Your task to perform on an android device: Find coffee shops on Maps Image 0: 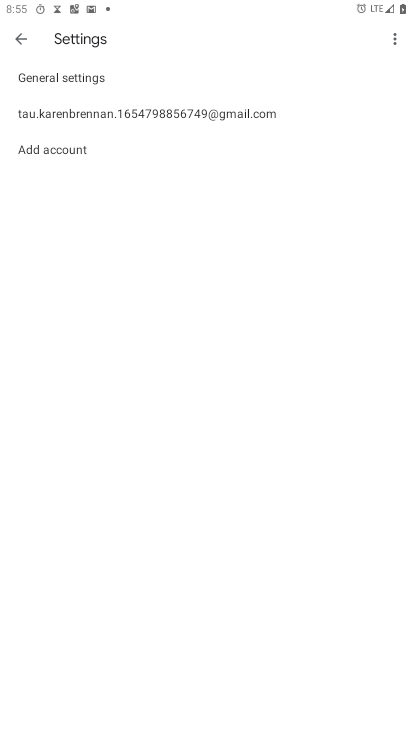
Step 0: press home button
Your task to perform on an android device: Find coffee shops on Maps Image 1: 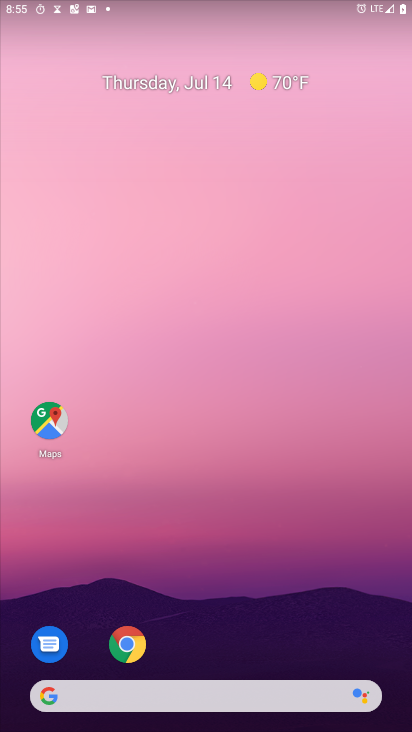
Step 1: click (56, 412)
Your task to perform on an android device: Find coffee shops on Maps Image 2: 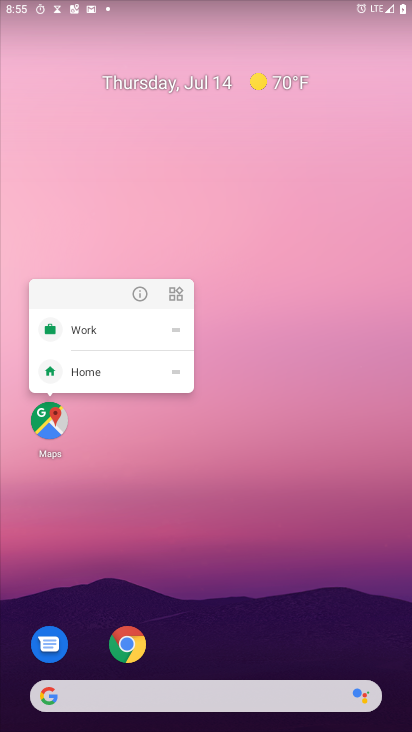
Step 2: click (56, 416)
Your task to perform on an android device: Find coffee shops on Maps Image 3: 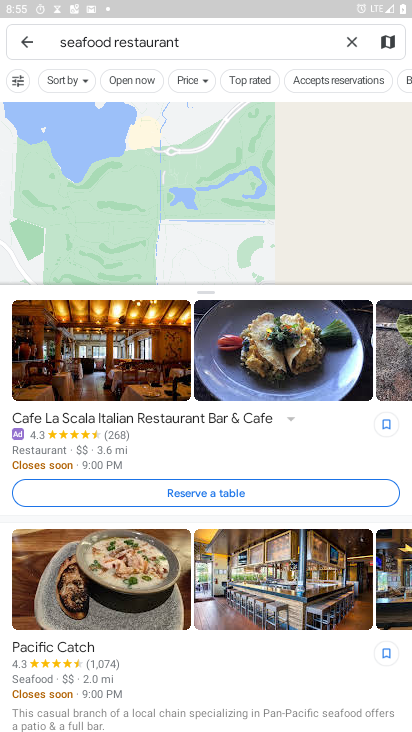
Step 3: click (351, 38)
Your task to perform on an android device: Find coffee shops on Maps Image 4: 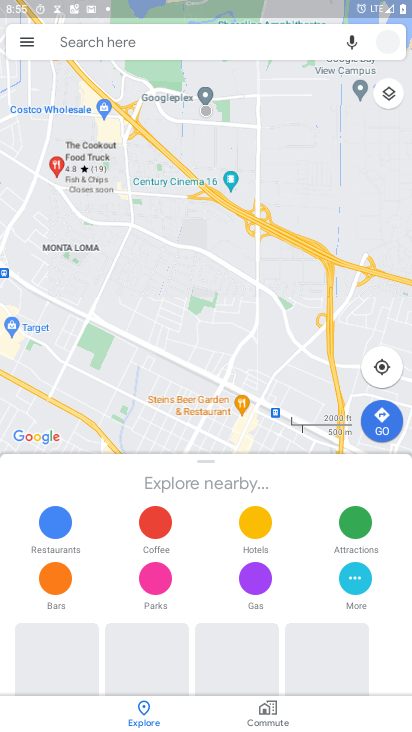
Step 4: click (233, 36)
Your task to perform on an android device: Find coffee shops on Maps Image 5: 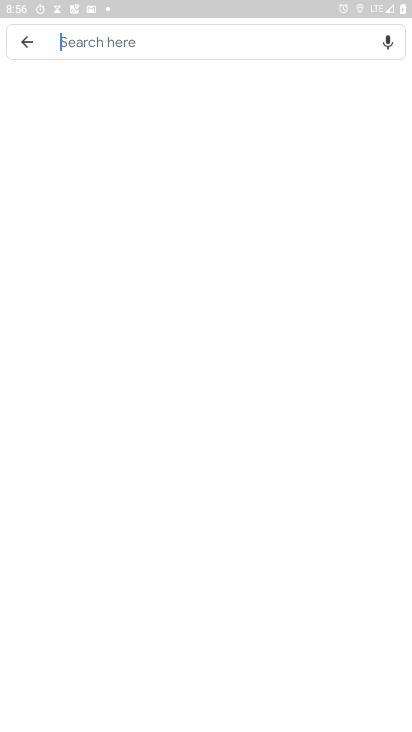
Step 5: click (178, 41)
Your task to perform on an android device: Find coffee shops on Maps Image 6: 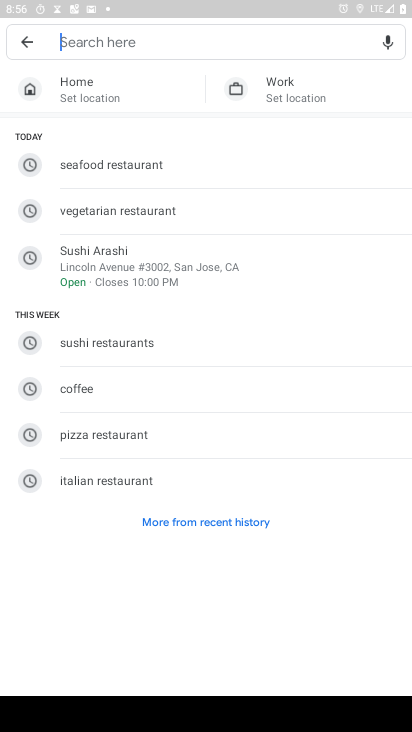
Step 6: click (84, 394)
Your task to perform on an android device: Find coffee shops on Maps Image 7: 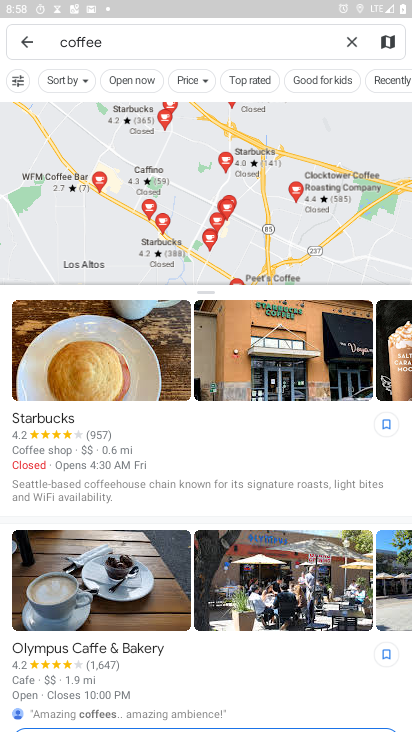
Step 7: task complete